Your task to perform on an android device: change text size in settings app Image 0: 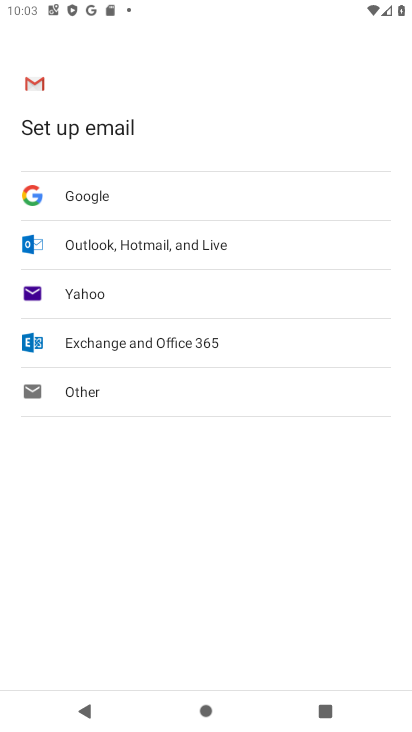
Step 0: press home button
Your task to perform on an android device: change text size in settings app Image 1: 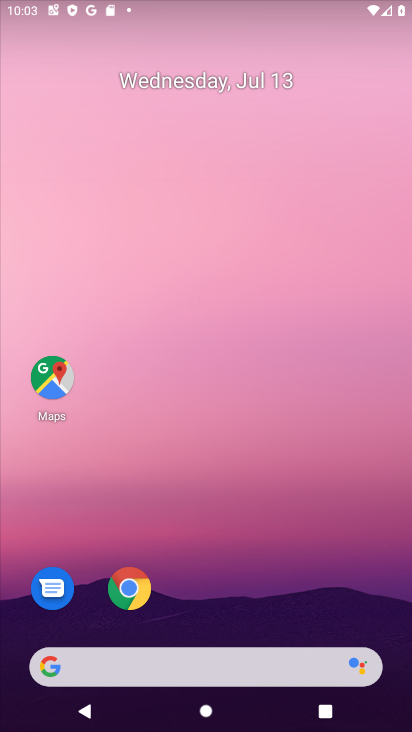
Step 1: drag from (215, 610) to (252, 47)
Your task to perform on an android device: change text size in settings app Image 2: 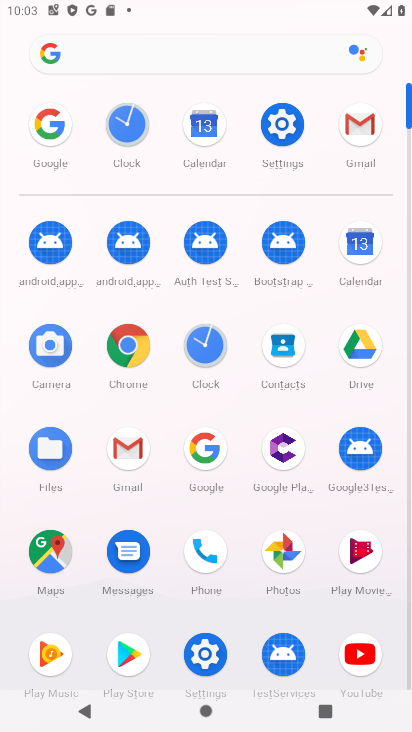
Step 2: click (284, 121)
Your task to perform on an android device: change text size in settings app Image 3: 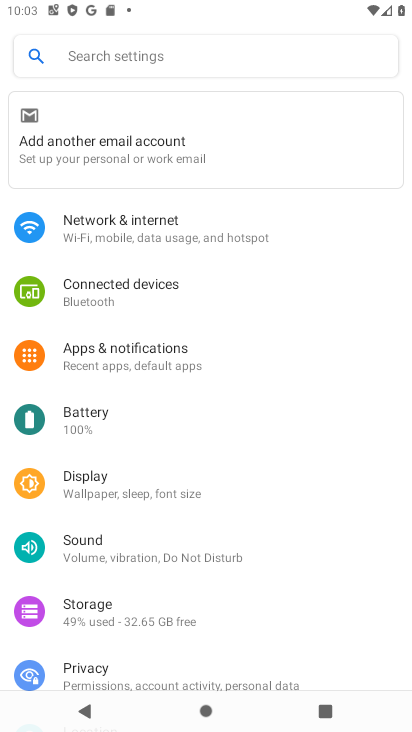
Step 3: click (125, 486)
Your task to perform on an android device: change text size in settings app Image 4: 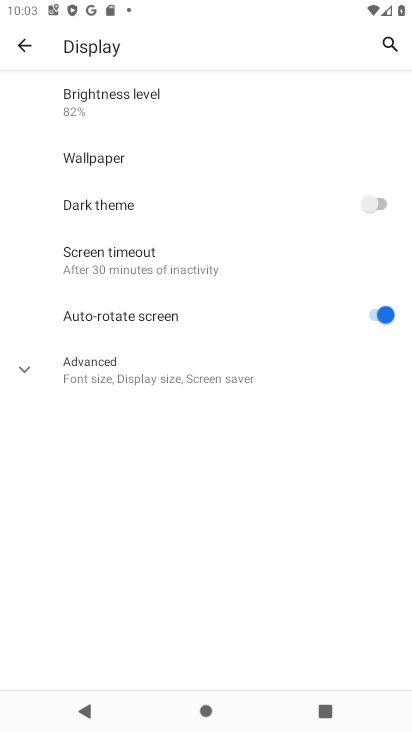
Step 4: click (91, 369)
Your task to perform on an android device: change text size in settings app Image 5: 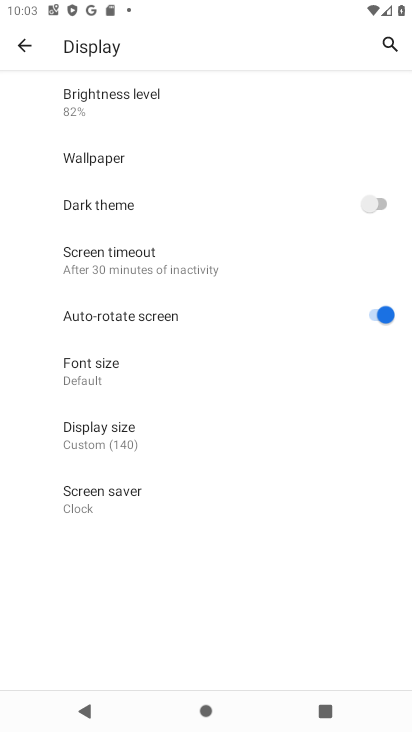
Step 5: click (140, 367)
Your task to perform on an android device: change text size in settings app Image 6: 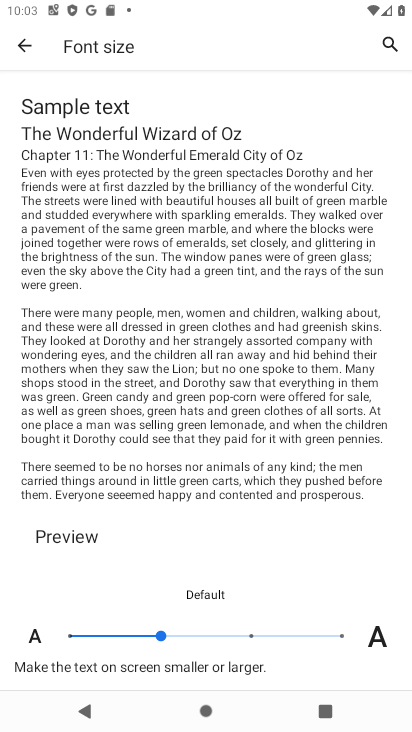
Step 6: task complete